Your task to perform on an android device: Search for "bose quietcomfort 35" on amazon.com, select the first entry, and add it to the cart. Image 0: 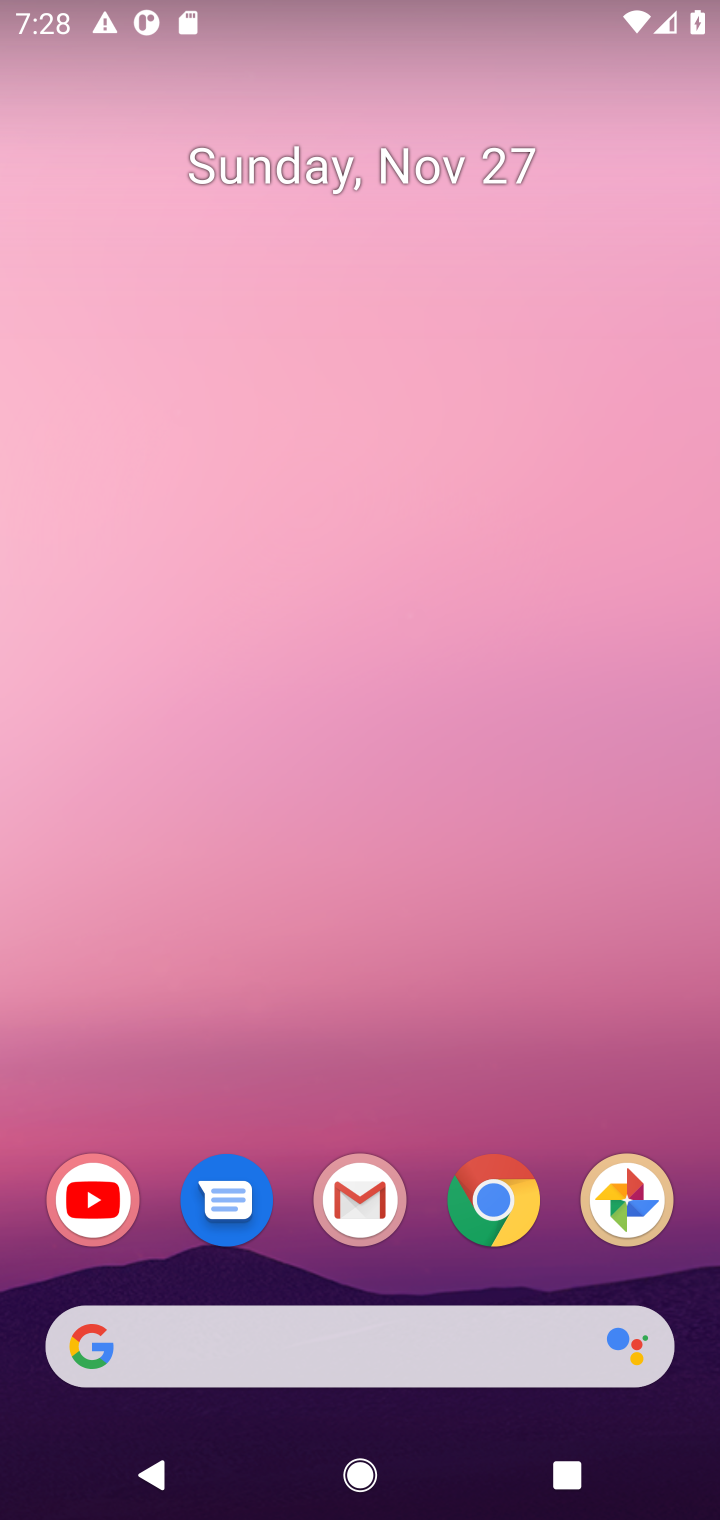
Step 0: click (501, 1217)
Your task to perform on an android device: Search for "bose quietcomfort 35" on amazon.com, select the first entry, and add it to the cart. Image 1: 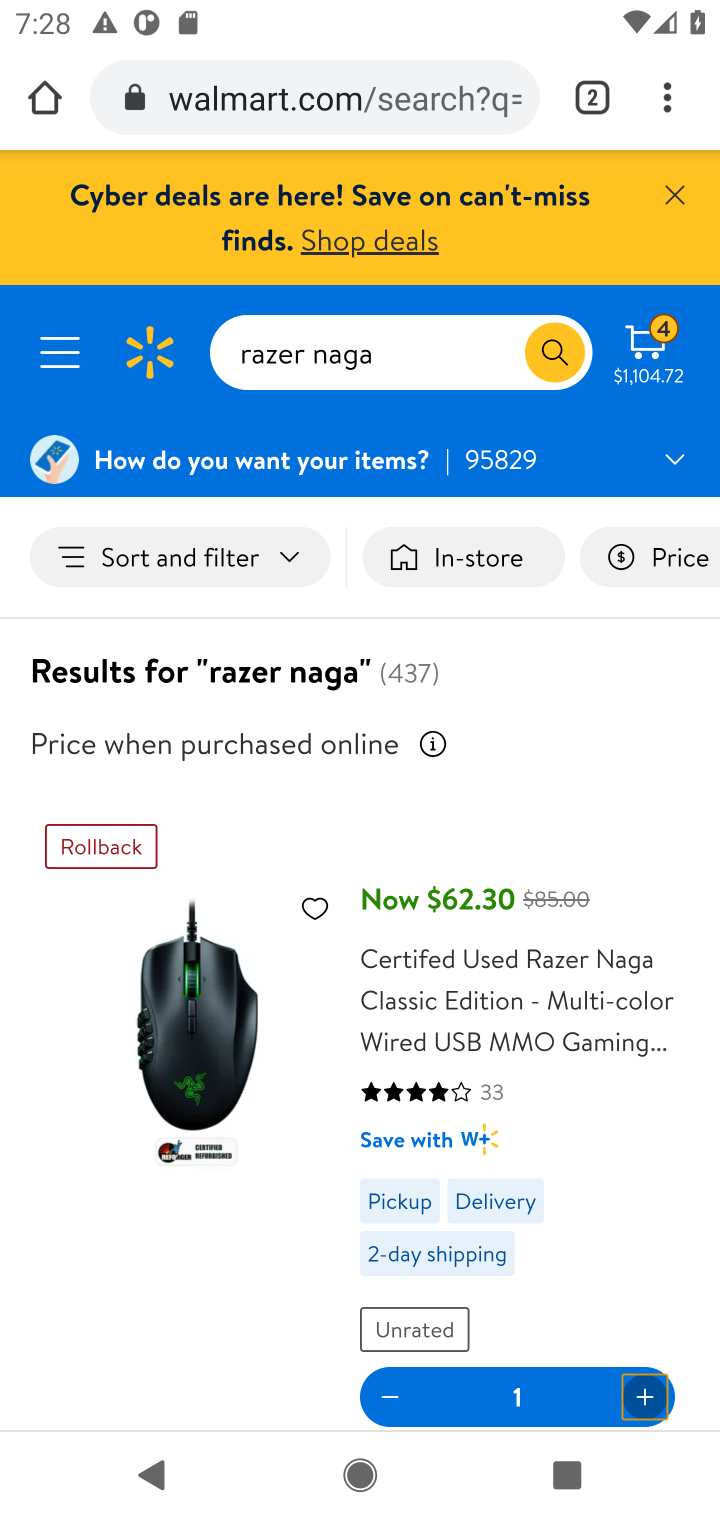
Step 1: click (308, 99)
Your task to perform on an android device: Search for "bose quietcomfort 35" on amazon.com, select the first entry, and add it to the cart. Image 2: 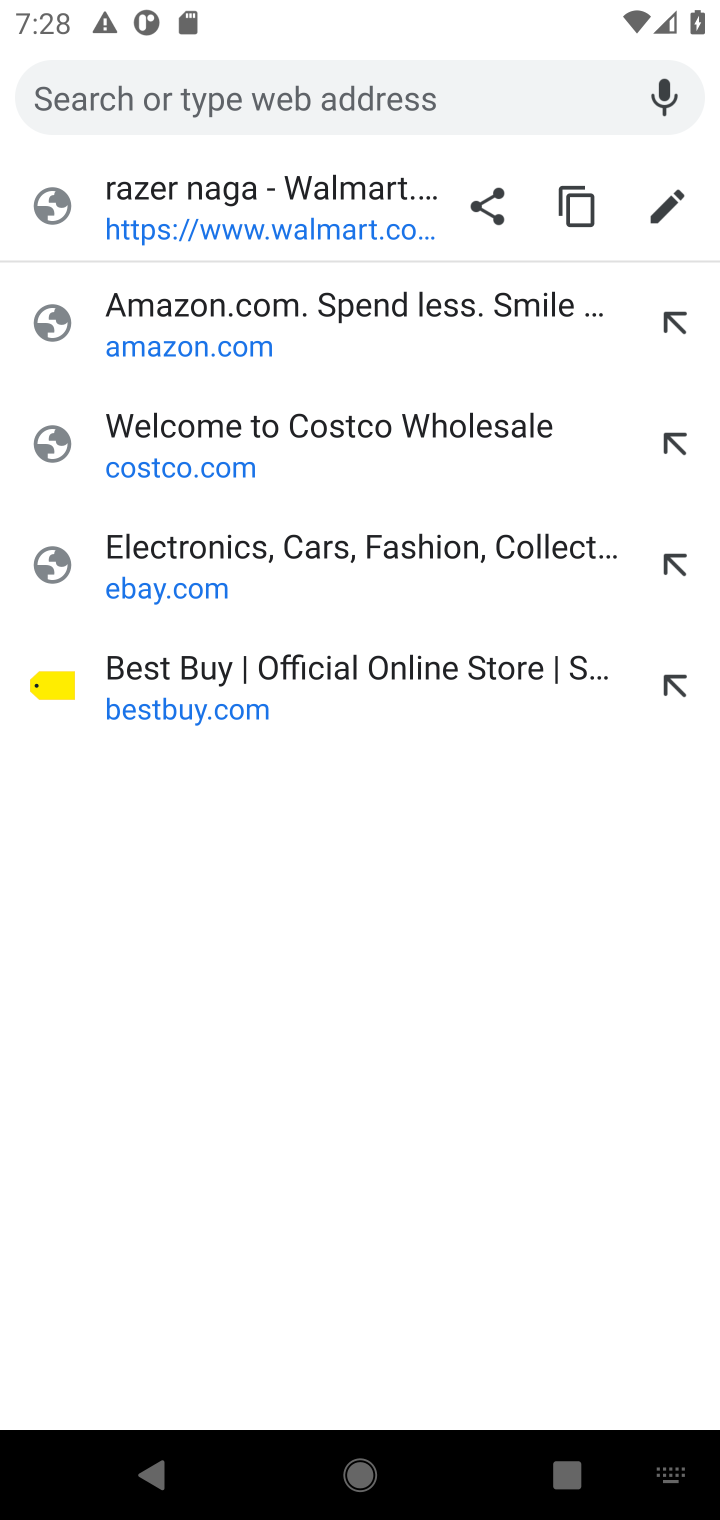
Step 2: click (175, 318)
Your task to perform on an android device: Search for "bose quietcomfort 35" on amazon.com, select the first entry, and add it to the cart. Image 3: 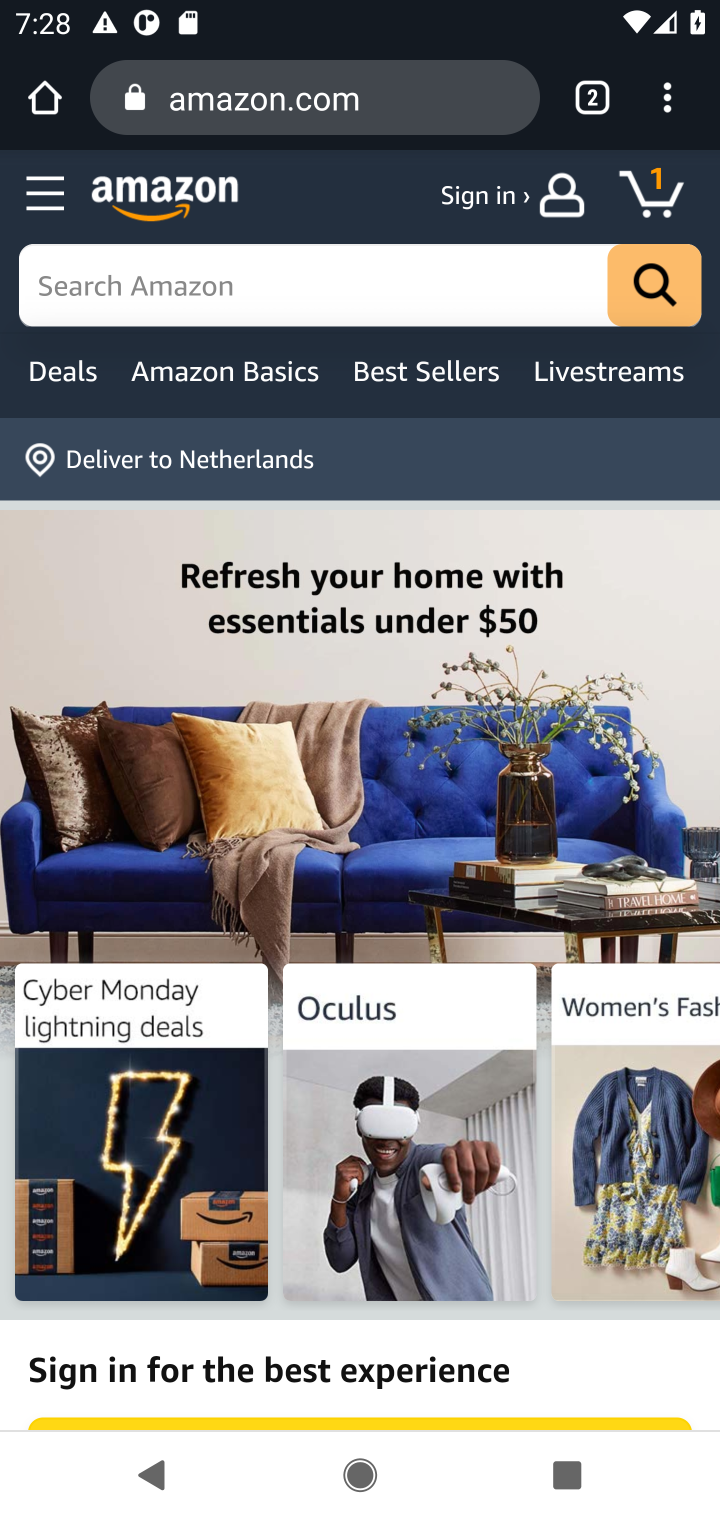
Step 3: click (187, 293)
Your task to perform on an android device: Search for "bose quietcomfort 35" on amazon.com, select the first entry, and add it to the cart. Image 4: 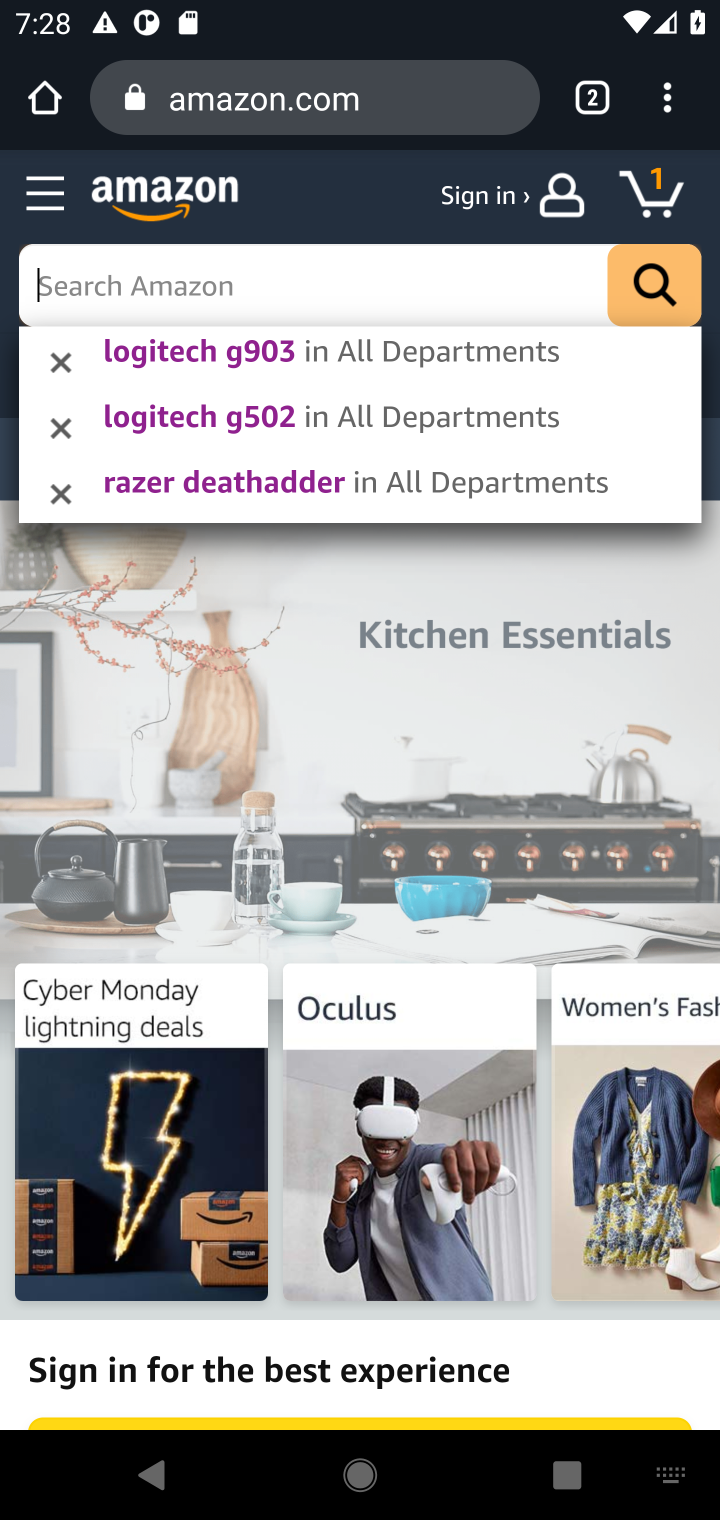
Step 4: type "bose quietcomfort 35"
Your task to perform on an android device: Search for "bose quietcomfort 35" on amazon.com, select the first entry, and add it to the cart. Image 5: 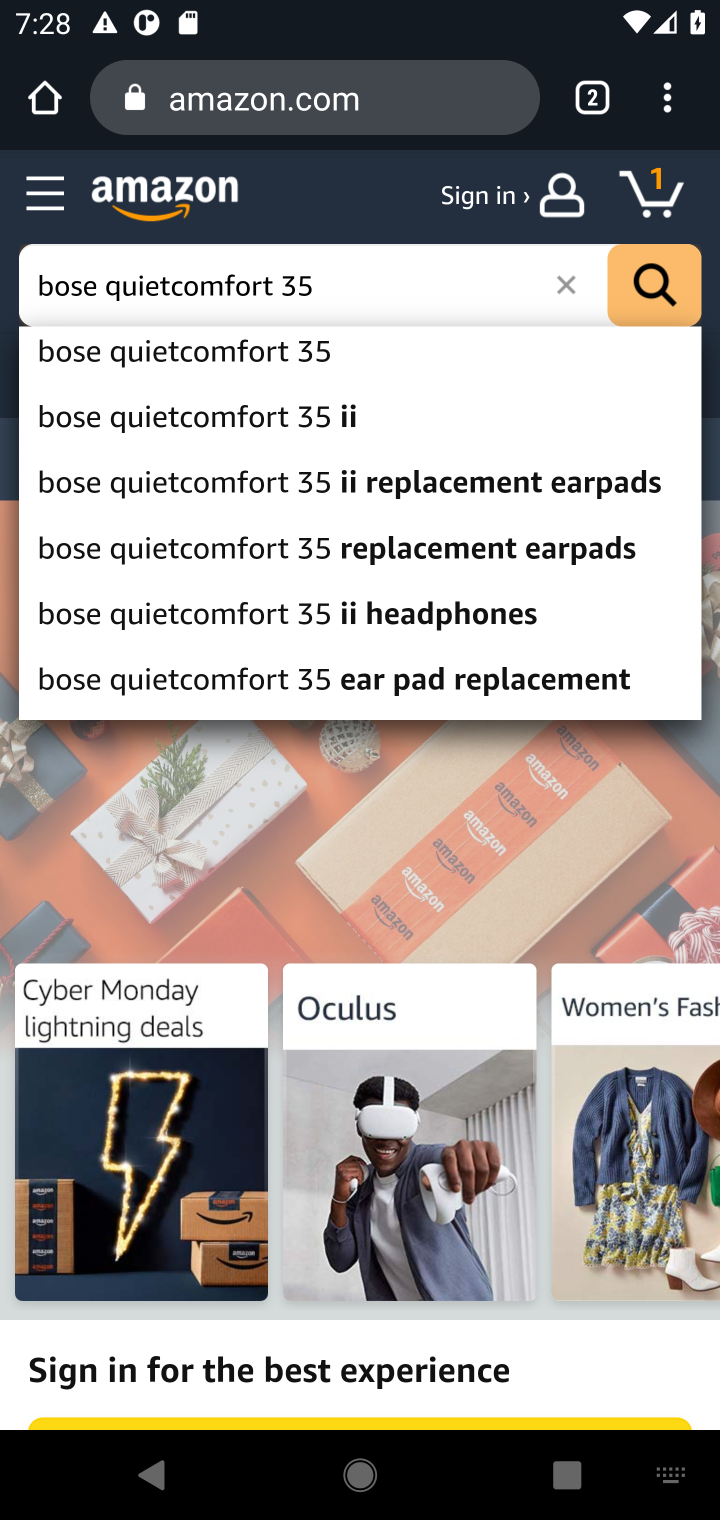
Step 5: click (222, 348)
Your task to perform on an android device: Search for "bose quietcomfort 35" on amazon.com, select the first entry, and add it to the cart. Image 6: 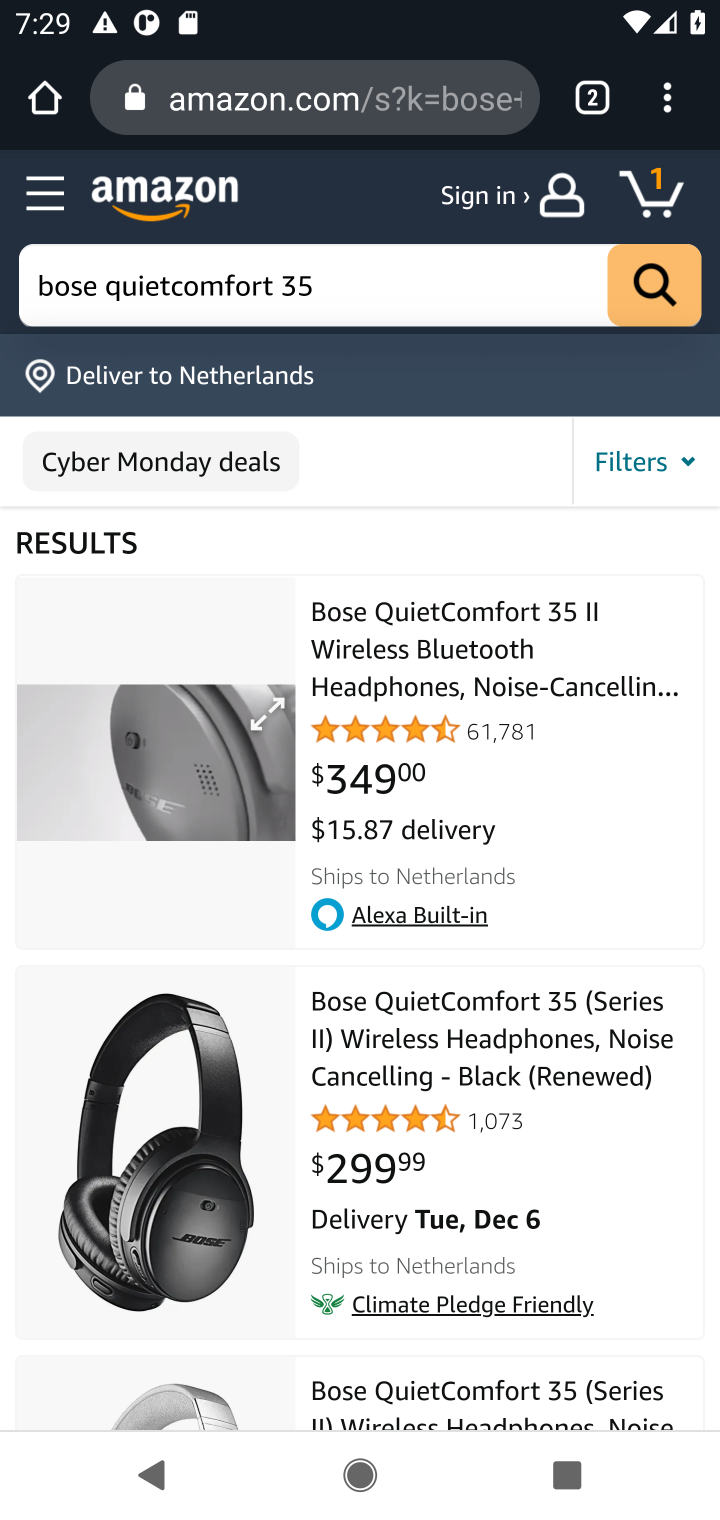
Step 6: click (388, 671)
Your task to perform on an android device: Search for "bose quietcomfort 35" on amazon.com, select the first entry, and add it to the cart. Image 7: 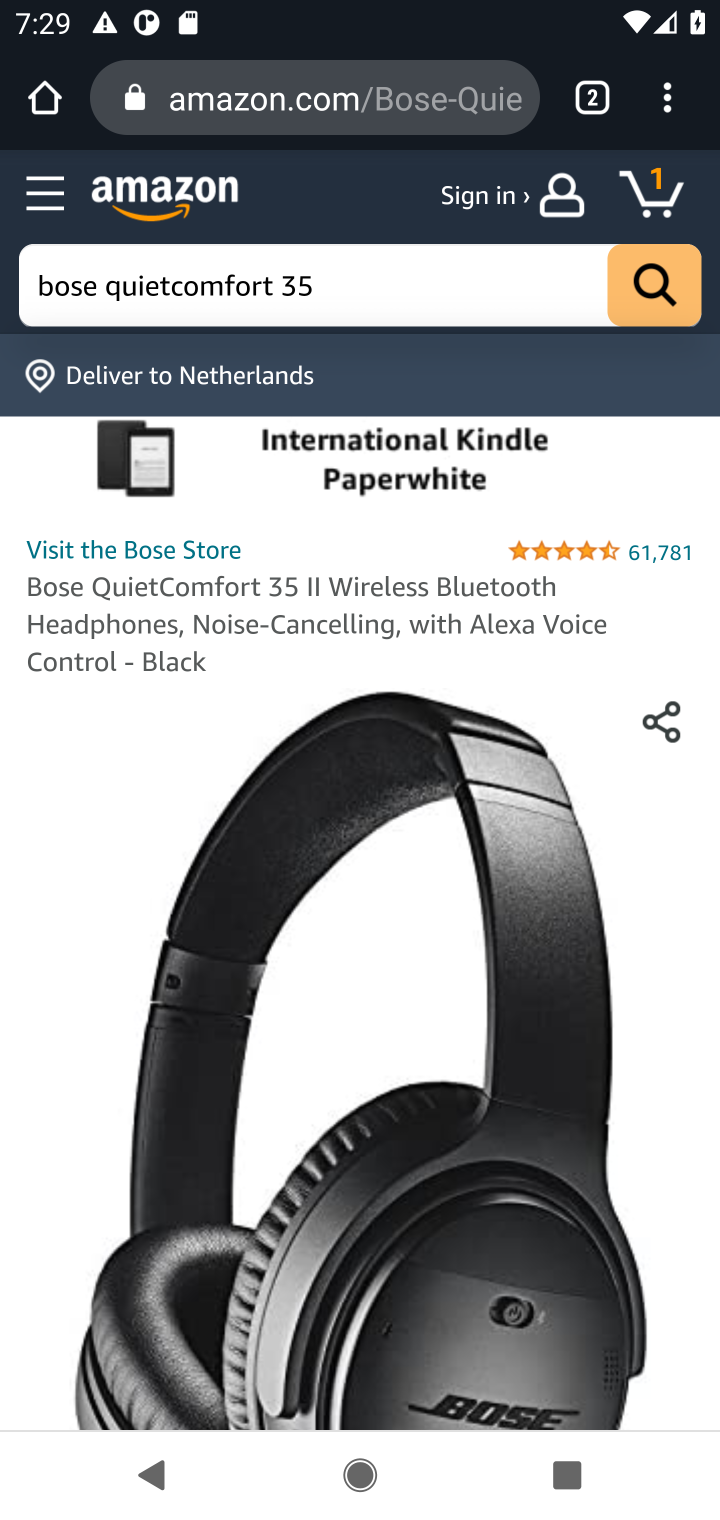
Step 7: drag from (276, 949) to (342, 401)
Your task to perform on an android device: Search for "bose quietcomfort 35" on amazon.com, select the first entry, and add it to the cart. Image 8: 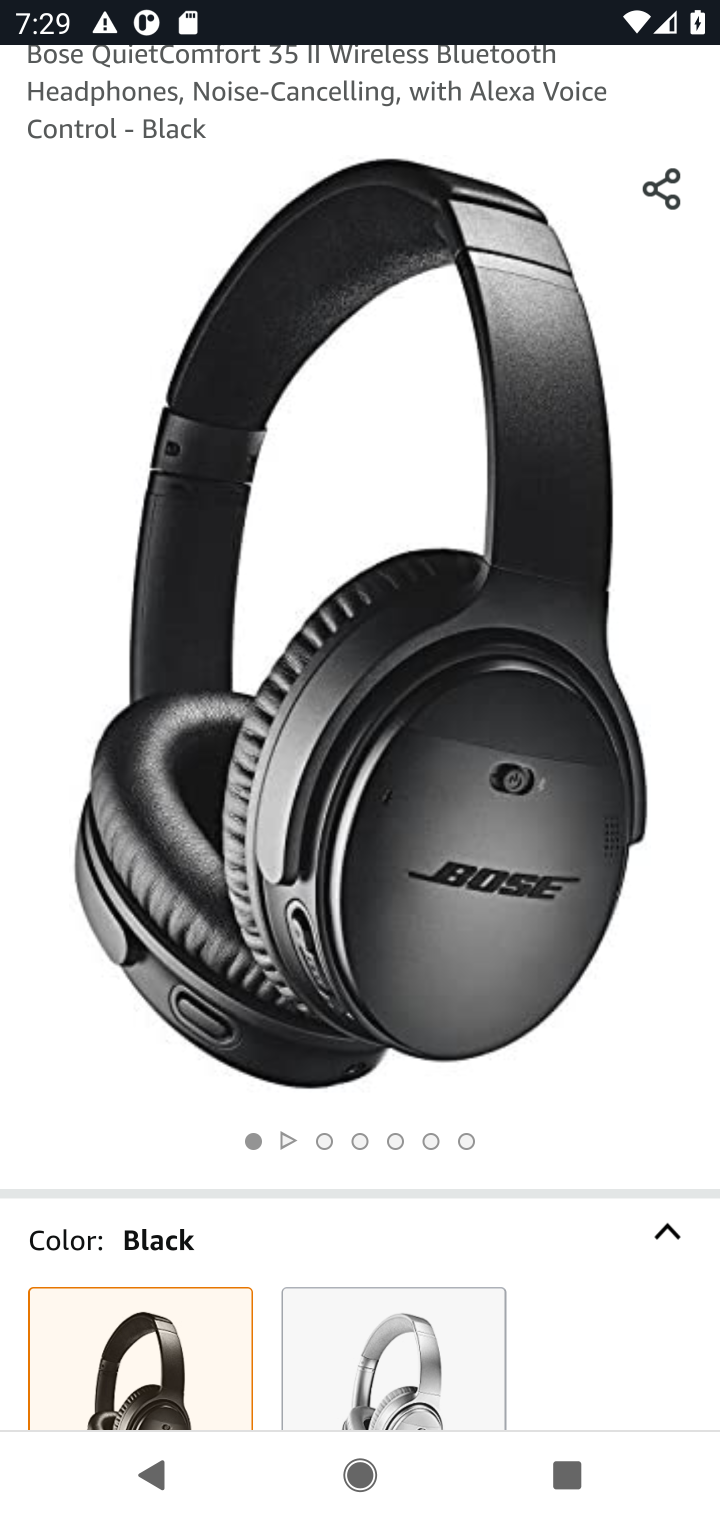
Step 8: drag from (412, 941) to (435, 273)
Your task to perform on an android device: Search for "bose quietcomfort 35" on amazon.com, select the first entry, and add it to the cart. Image 9: 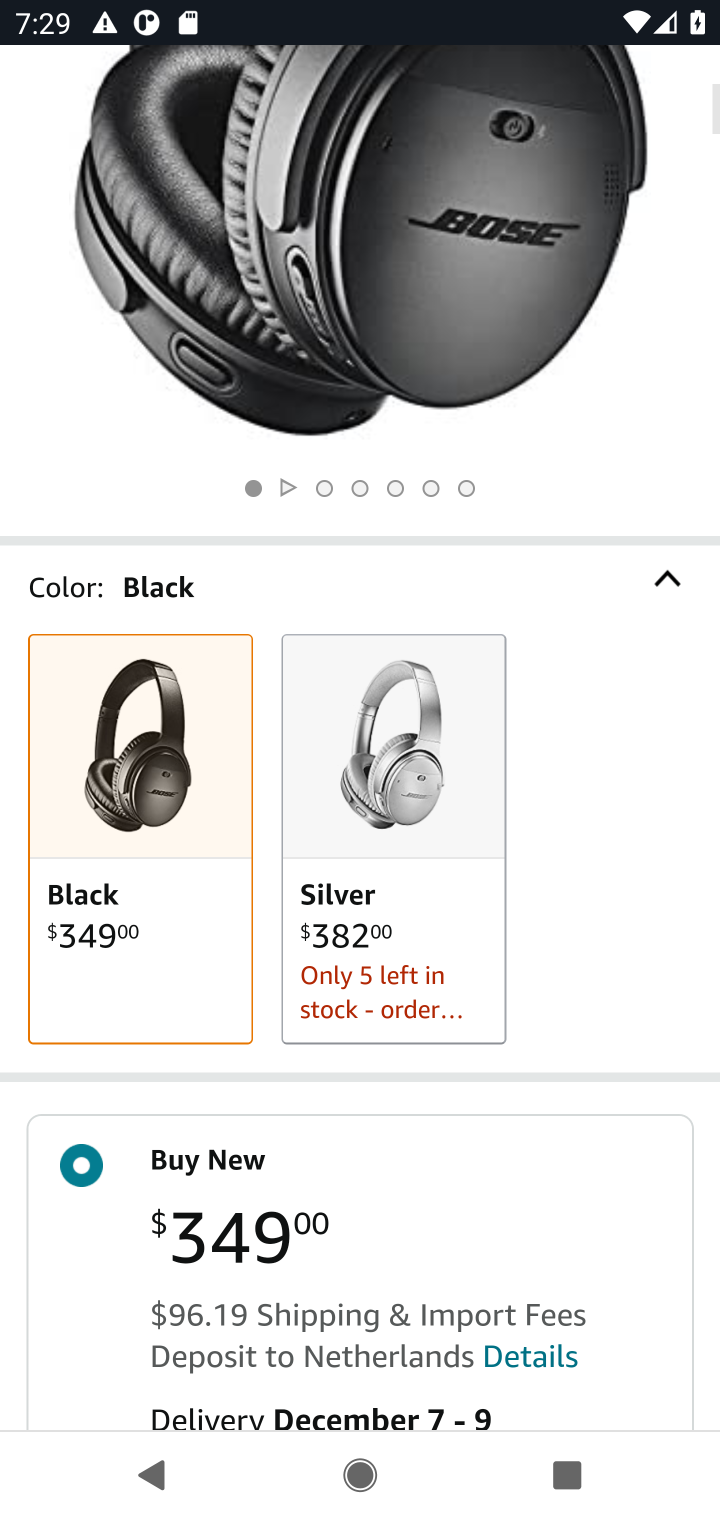
Step 9: drag from (364, 917) to (399, 171)
Your task to perform on an android device: Search for "bose quietcomfort 35" on amazon.com, select the first entry, and add it to the cart. Image 10: 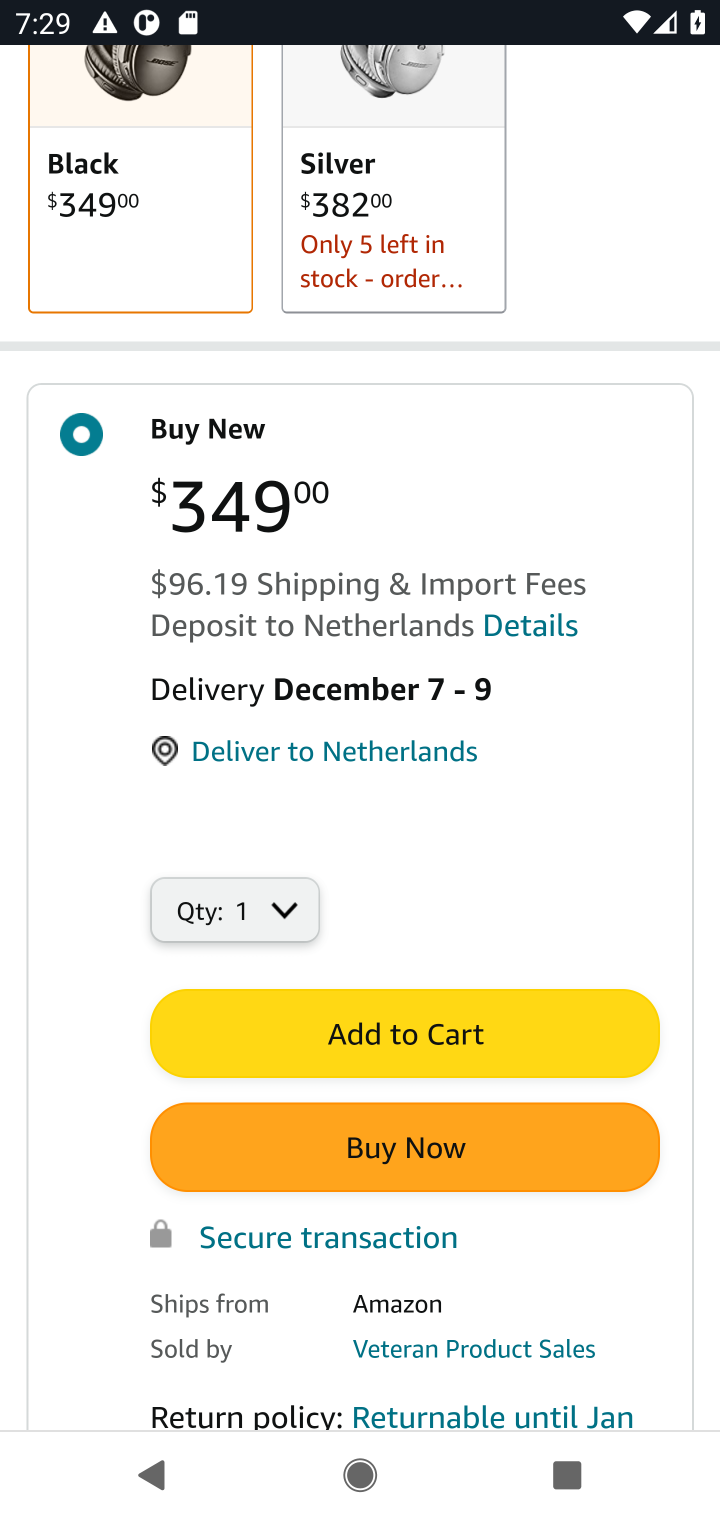
Step 10: click (367, 1028)
Your task to perform on an android device: Search for "bose quietcomfort 35" on amazon.com, select the first entry, and add it to the cart. Image 11: 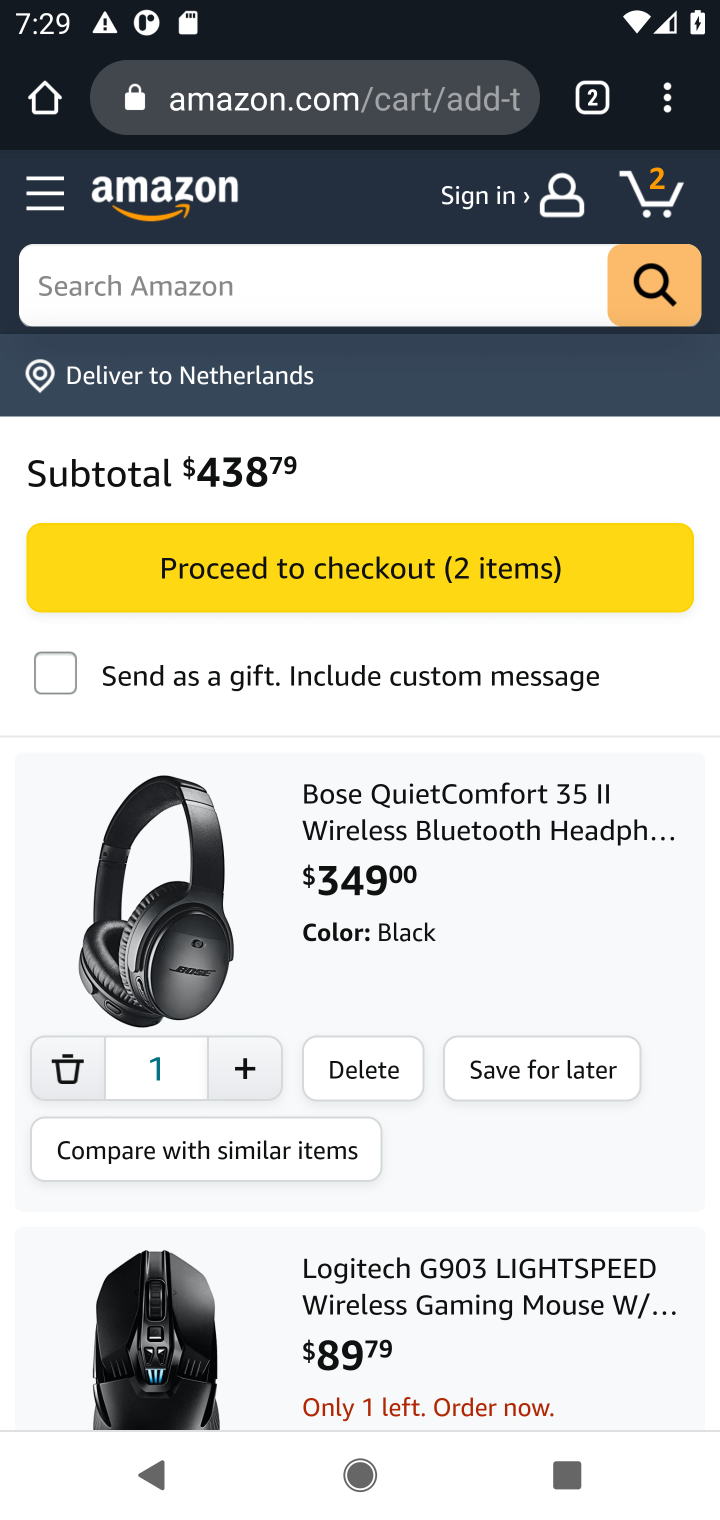
Step 11: task complete